Your task to perform on an android device: Go to Yahoo.com Image 0: 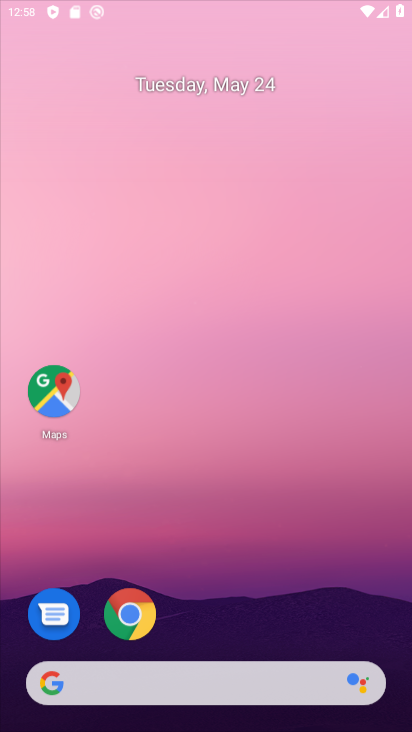
Step 0: press home button
Your task to perform on an android device: Go to Yahoo.com Image 1: 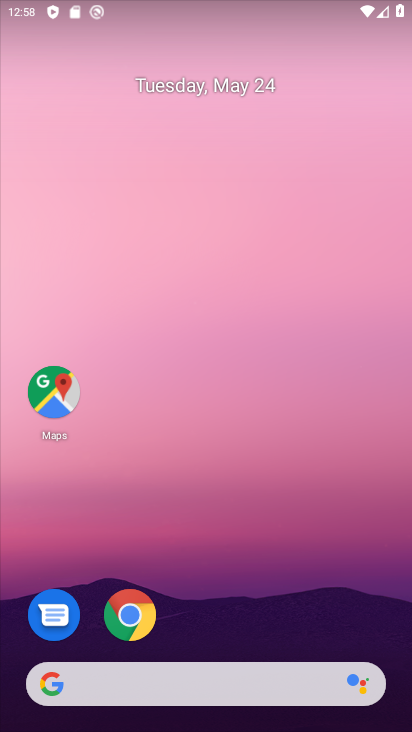
Step 1: click (122, 614)
Your task to perform on an android device: Go to Yahoo.com Image 2: 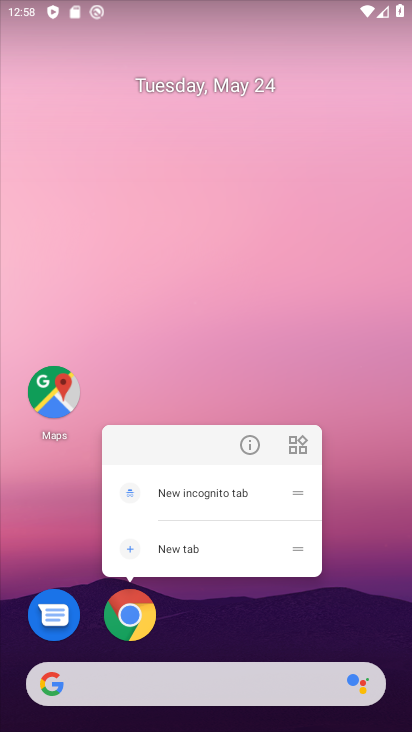
Step 2: click (125, 609)
Your task to perform on an android device: Go to Yahoo.com Image 3: 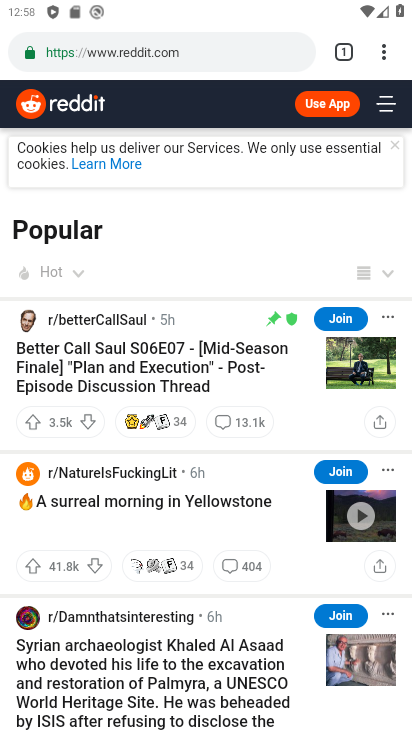
Step 3: click (341, 43)
Your task to perform on an android device: Go to Yahoo.com Image 4: 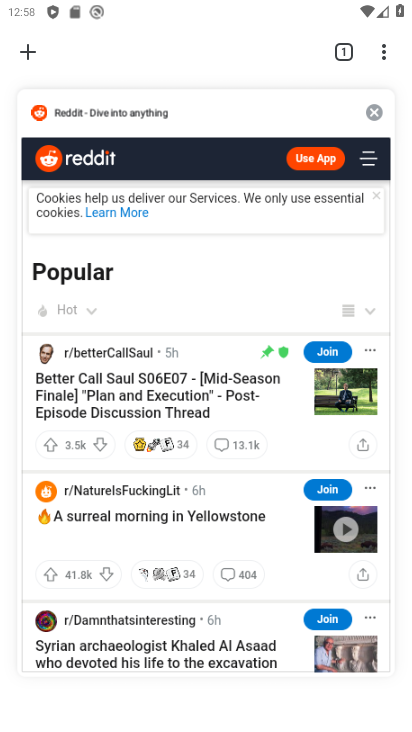
Step 4: click (370, 103)
Your task to perform on an android device: Go to Yahoo.com Image 5: 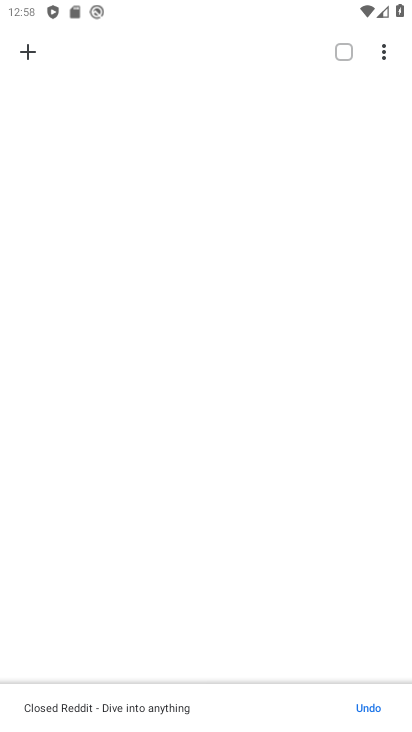
Step 5: click (33, 51)
Your task to perform on an android device: Go to Yahoo.com Image 6: 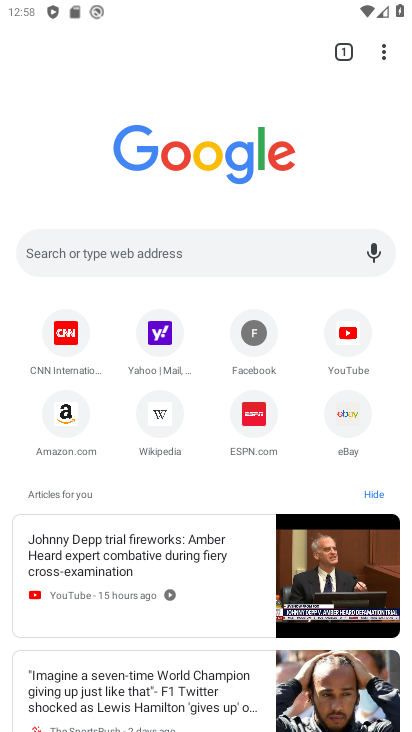
Step 6: click (156, 329)
Your task to perform on an android device: Go to Yahoo.com Image 7: 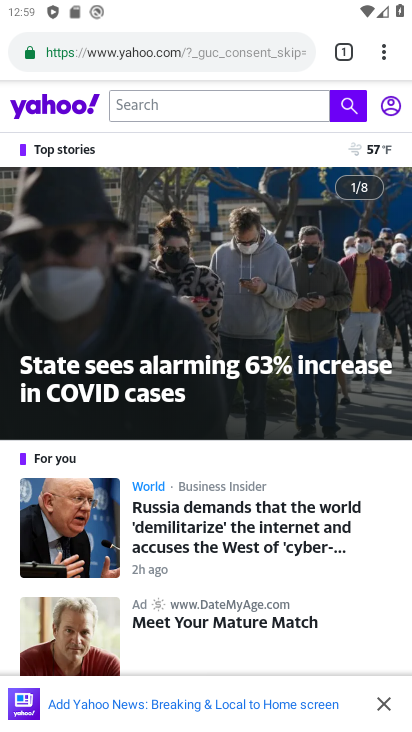
Step 7: task complete